Your task to perform on an android device: clear history in the chrome app Image 0: 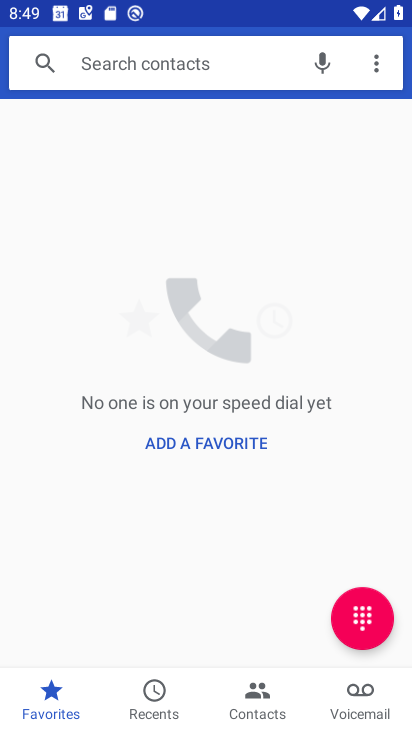
Step 0: press home button
Your task to perform on an android device: clear history in the chrome app Image 1: 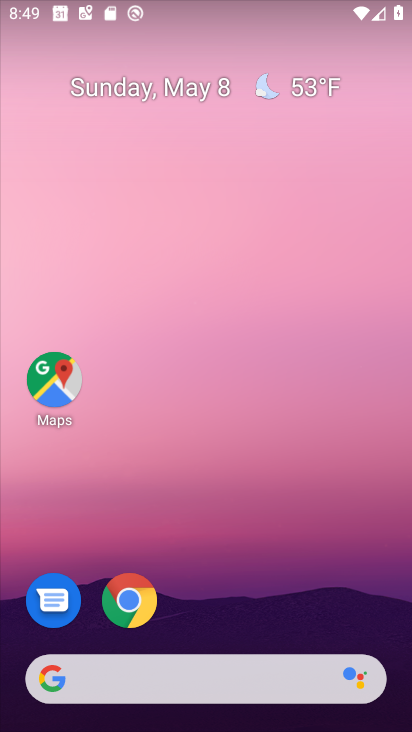
Step 1: drag from (213, 634) to (183, 257)
Your task to perform on an android device: clear history in the chrome app Image 2: 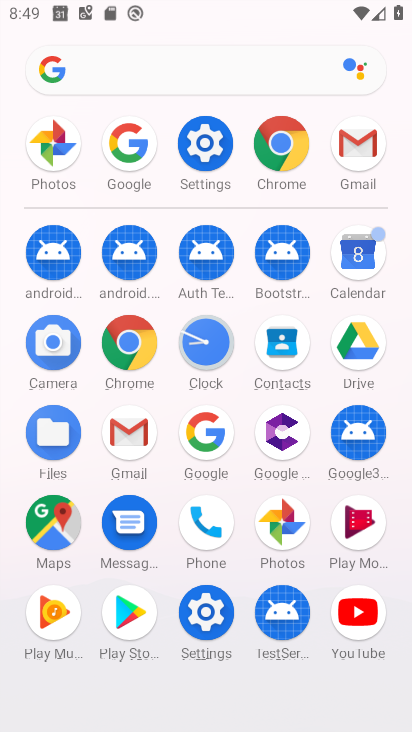
Step 2: click (281, 161)
Your task to perform on an android device: clear history in the chrome app Image 3: 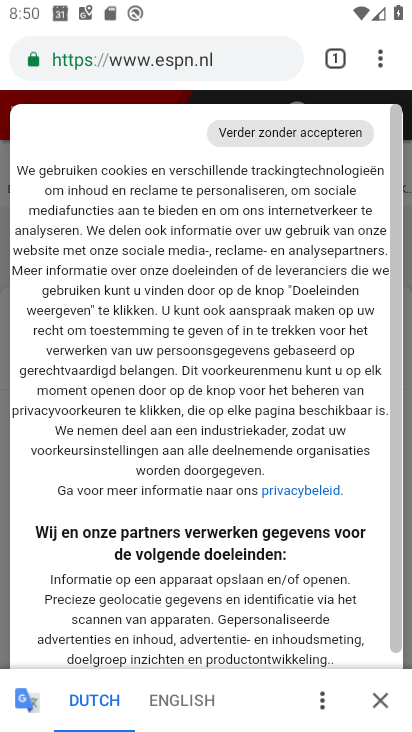
Step 3: click (379, 68)
Your task to perform on an android device: clear history in the chrome app Image 4: 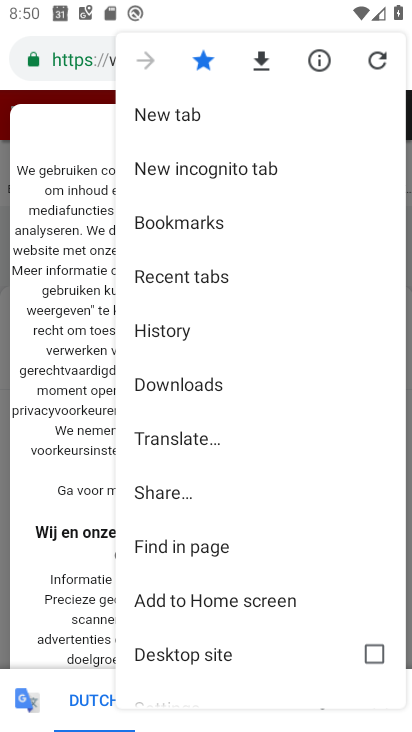
Step 4: click (226, 338)
Your task to perform on an android device: clear history in the chrome app Image 5: 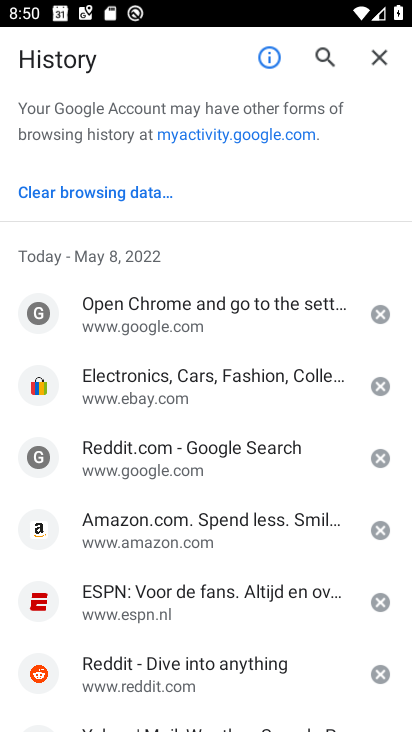
Step 5: click (86, 192)
Your task to perform on an android device: clear history in the chrome app Image 6: 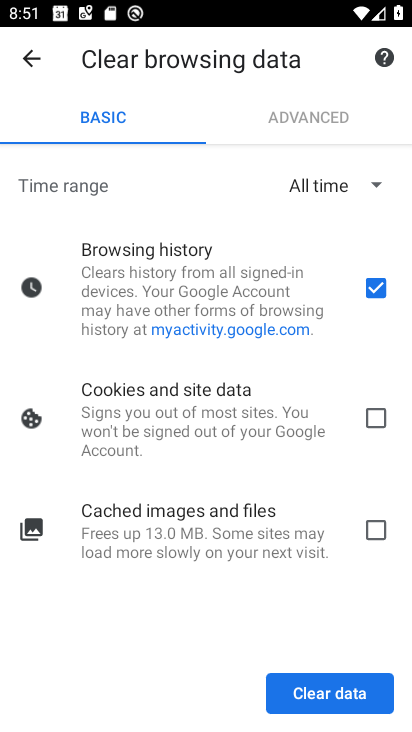
Step 6: click (354, 708)
Your task to perform on an android device: clear history in the chrome app Image 7: 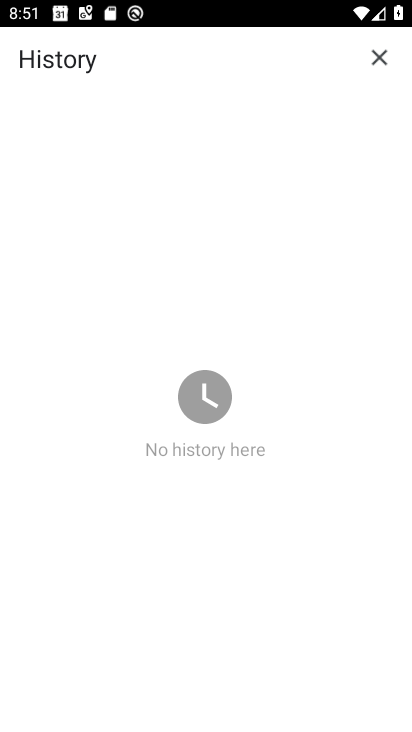
Step 7: task complete